Your task to perform on an android device: Search for pizza restaurants on Maps Image 0: 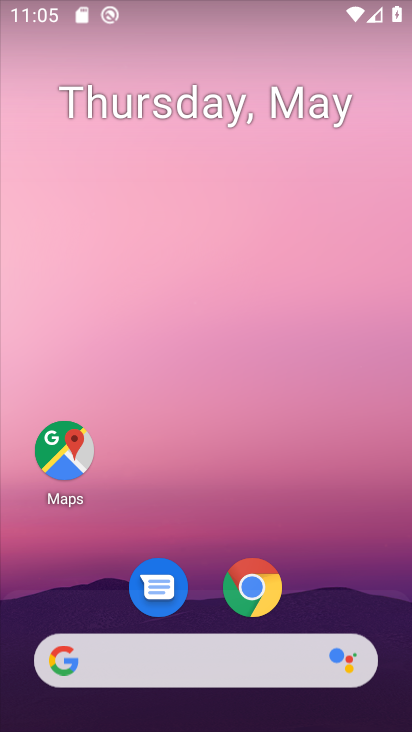
Step 0: click (52, 447)
Your task to perform on an android device: Search for pizza restaurants on Maps Image 1: 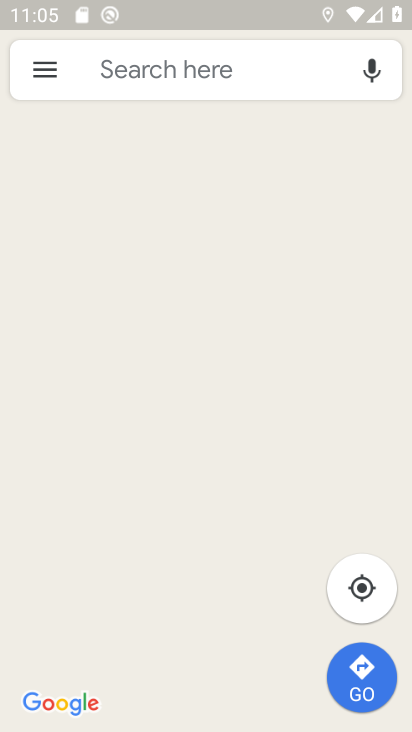
Step 1: click (170, 75)
Your task to perform on an android device: Search for pizza restaurants on Maps Image 2: 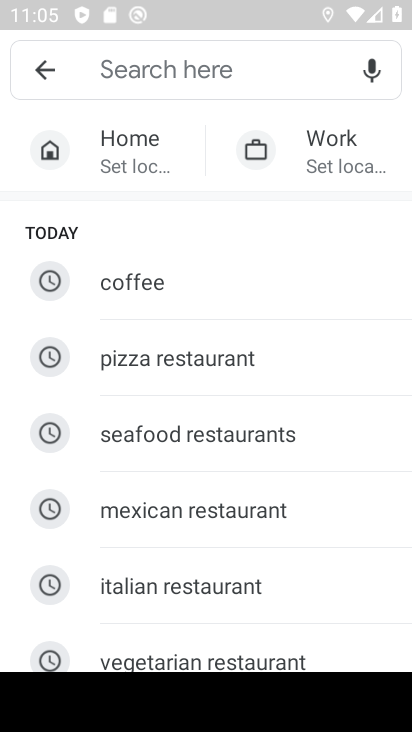
Step 2: type "Pizza restaurants"
Your task to perform on an android device: Search for pizza restaurants on Maps Image 3: 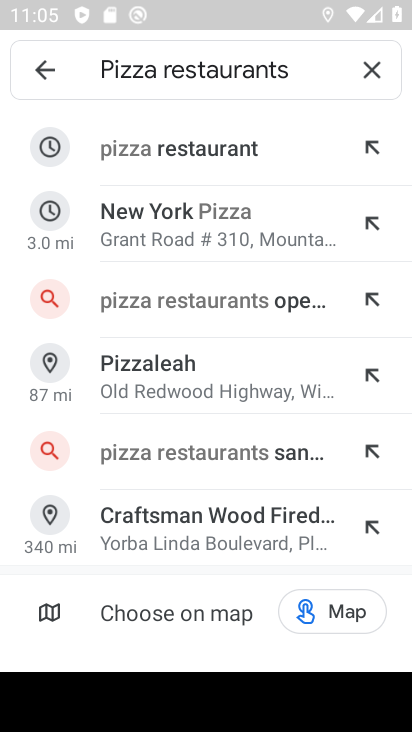
Step 3: click (217, 147)
Your task to perform on an android device: Search for pizza restaurants on Maps Image 4: 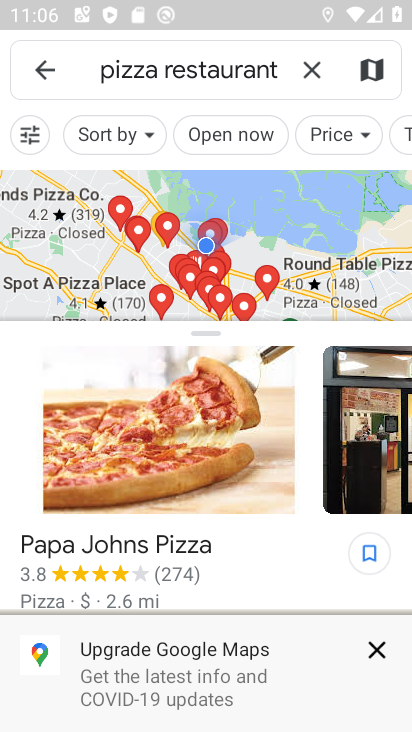
Step 4: click (396, 659)
Your task to perform on an android device: Search for pizza restaurants on Maps Image 5: 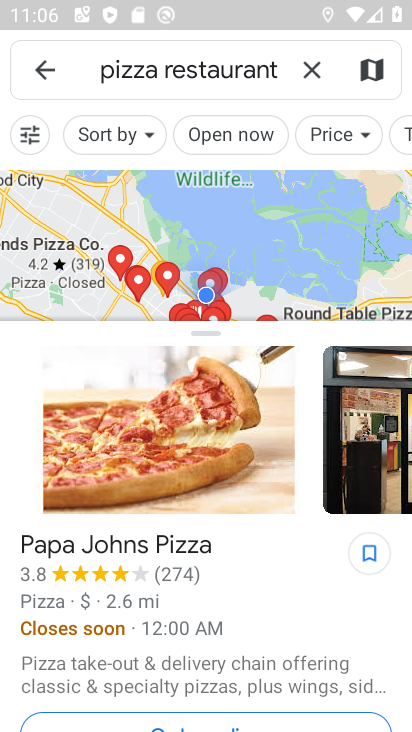
Step 5: task complete